Your task to perform on an android device: Go to ESPN.com Image 0: 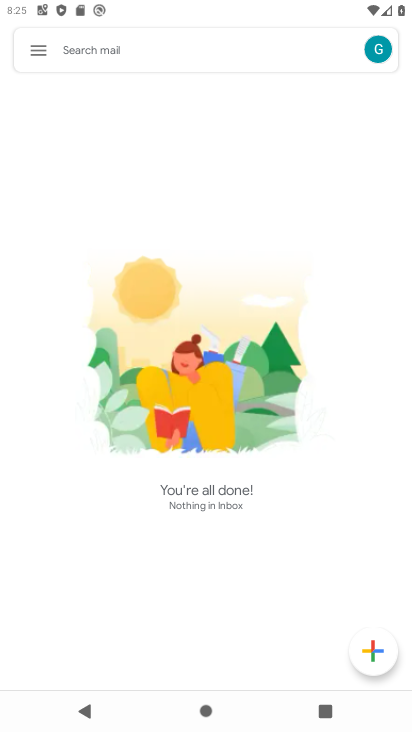
Step 0: press home button
Your task to perform on an android device: Go to ESPN.com Image 1: 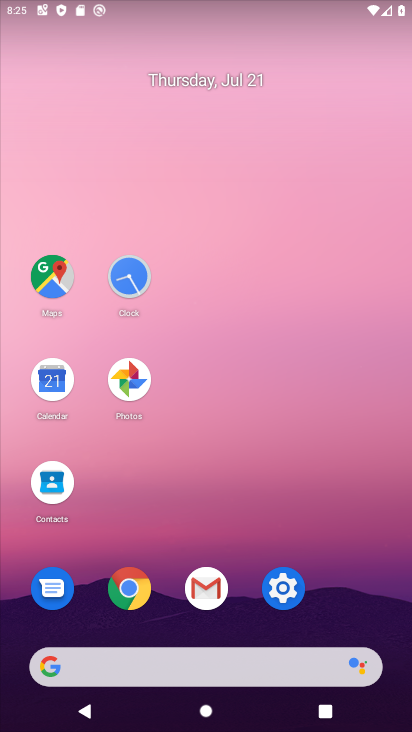
Step 1: click (131, 588)
Your task to perform on an android device: Go to ESPN.com Image 2: 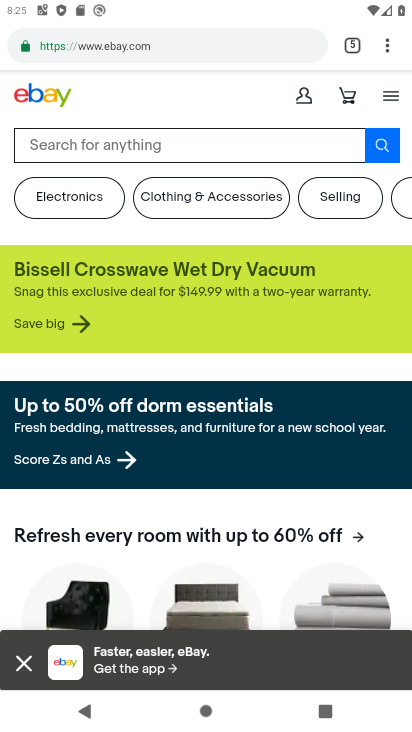
Step 2: click (389, 39)
Your task to perform on an android device: Go to ESPN.com Image 3: 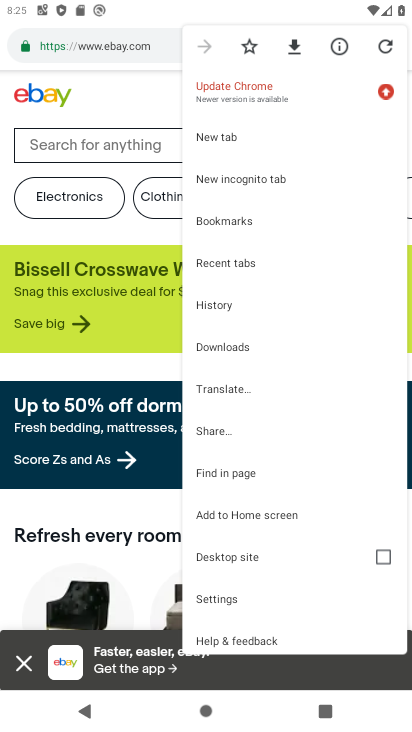
Step 3: click (221, 131)
Your task to perform on an android device: Go to ESPN.com Image 4: 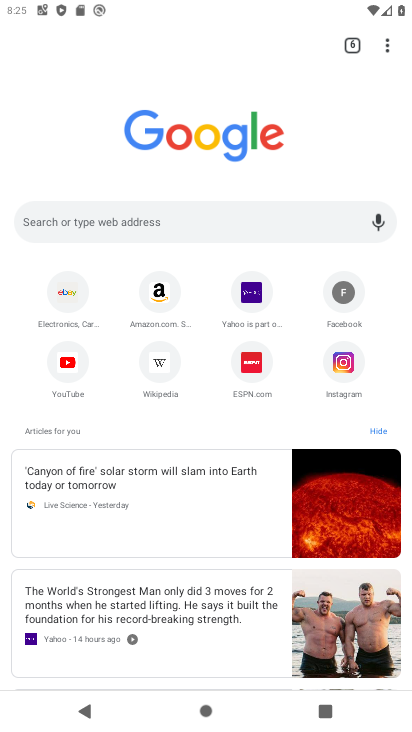
Step 4: click (259, 353)
Your task to perform on an android device: Go to ESPN.com Image 5: 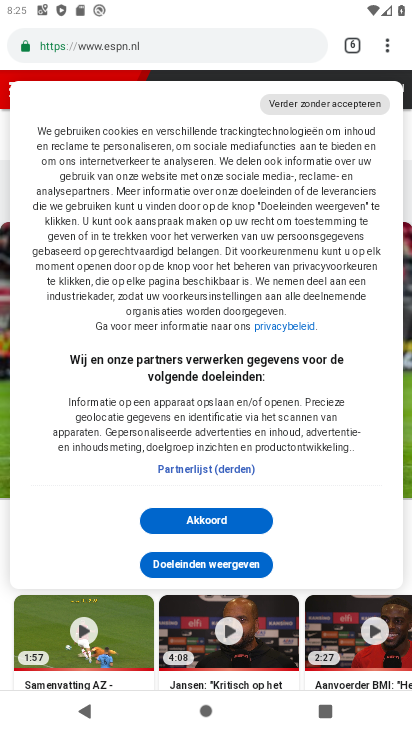
Step 5: task complete